Your task to perform on an android device: search for starred emails in the gmail app Image 0: 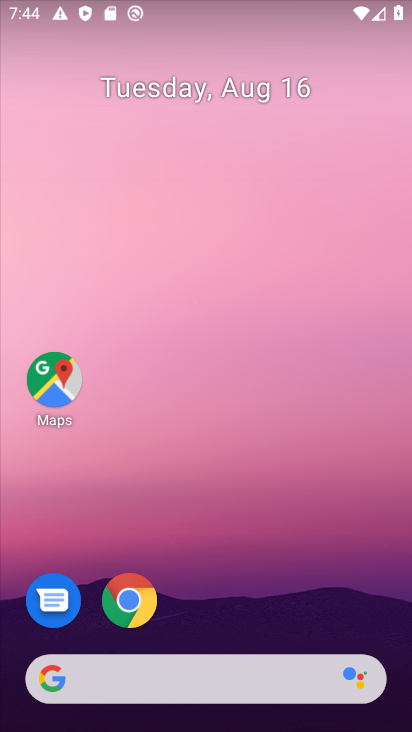
Step 0: drag from (196, 641) to (381, 0)
Your task to perform on an android device: search for starred emails in the gmail app Image 1: 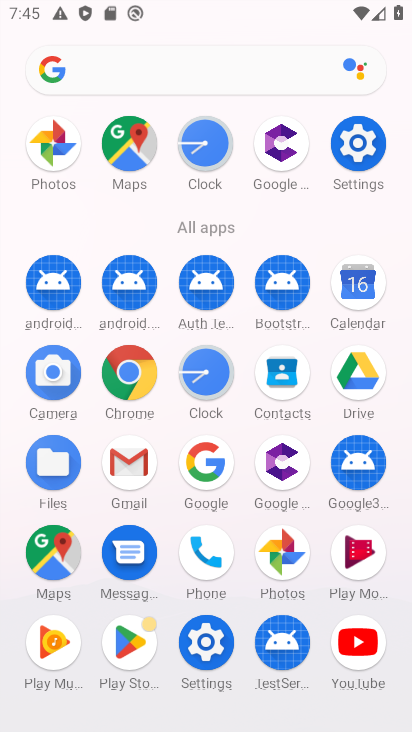
Step 1: click (126, 468)
Your task to perform on an android device: search for starred emails in the gmail app Image 2: 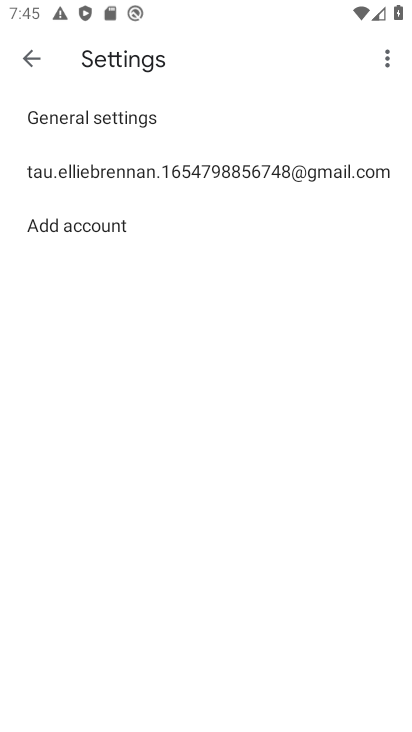
Step 2: click (101, 176)
Your task to perform on an android device: search for starred emails in the gmail app Image 3: 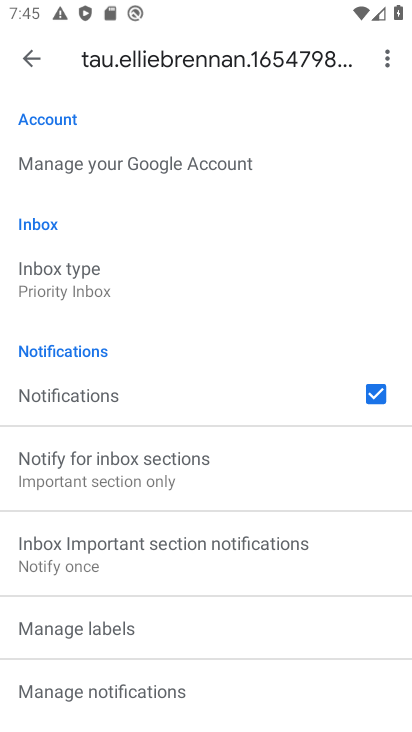
Step 3: click (21, 65)
Your task to perform on an android device: search for starred emails in the gmail app Image 4: 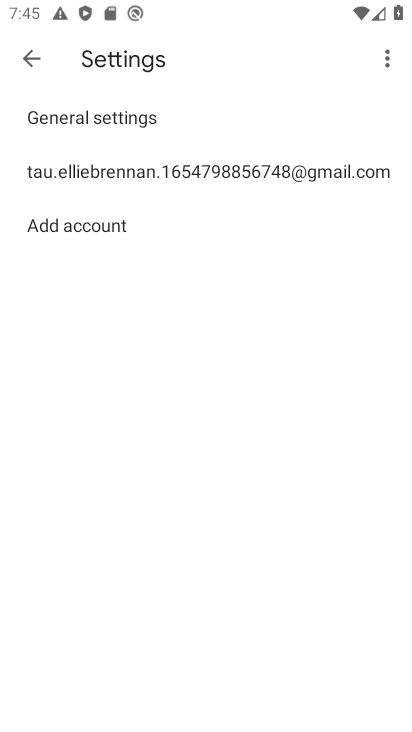
Step 4: click (21, 65)
Your task to perform on an android device: search for starred emails in the gmail app Image 5: 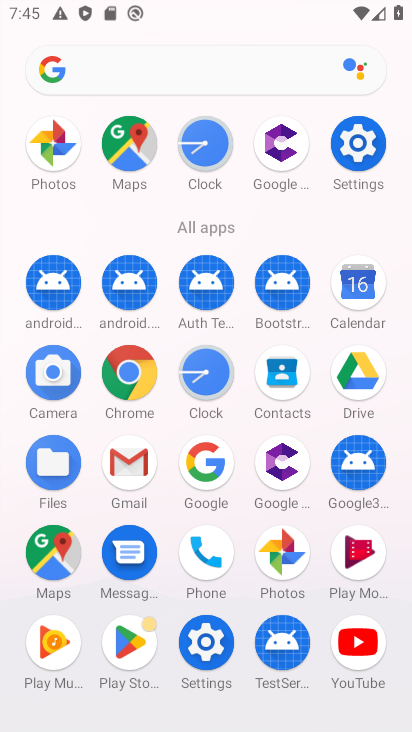
Step 5: click (109, 470)
Your task to perform on an android device: search for starred emails in the gmail app Image 6: 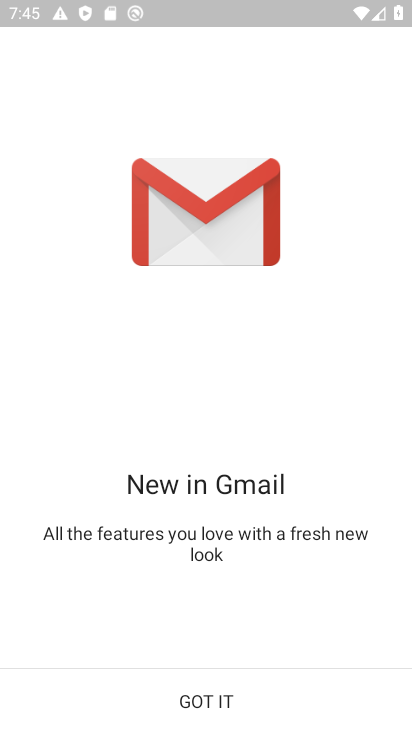
Step 6: click (202, 722)
Your task to perform on an android device: search for starred emails in the gmail app Image 7: 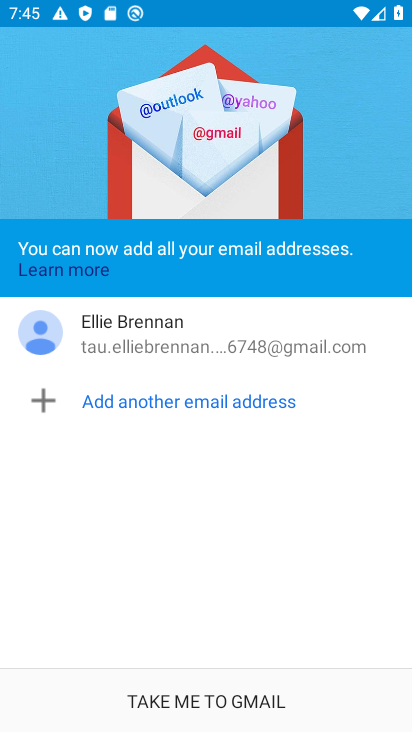
Step 7: click (236, 708)
Your task to perform on an android device: search for starred emails in the gmail app Image 8: 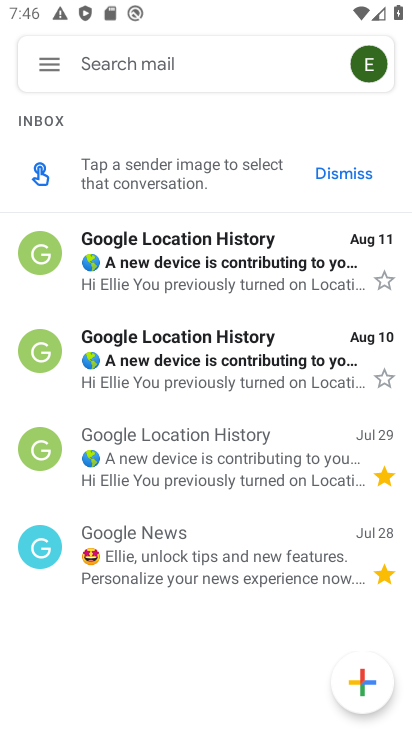
Step 8: click (46, 60)
Your task to perform on an android device: search for starred emails in the gmail app Image 9: 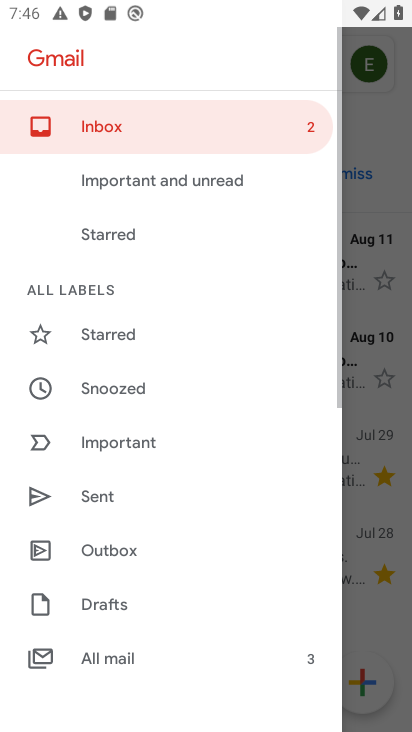
Step 9: click (113, 239)
Your task to perform on an android device: search for starred emails in the gmail app Image 10: 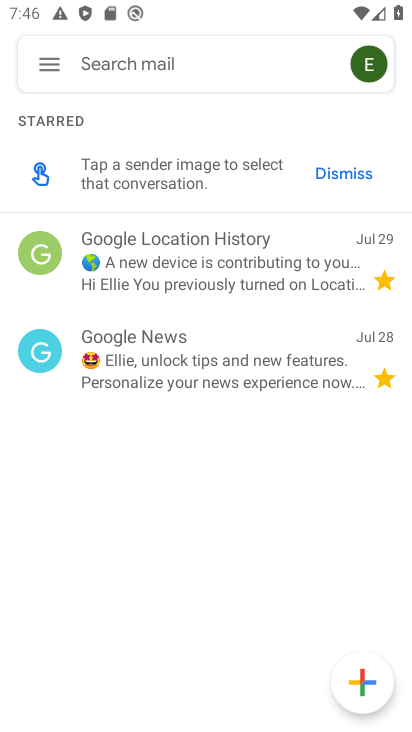
Step 10: task complete